Your task to perform on an android device: change the upload size in google photos Image 0: 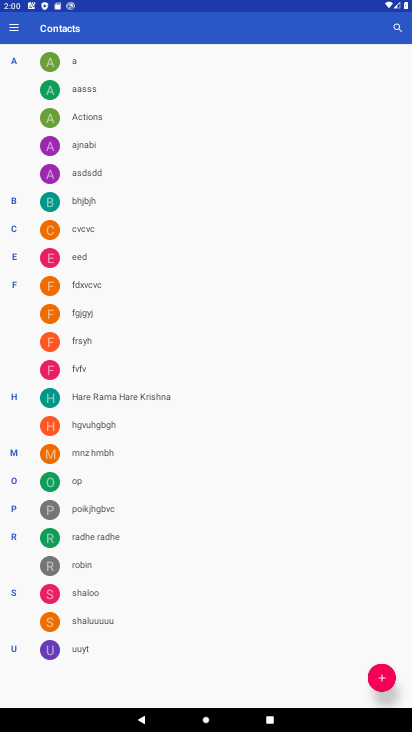
Step 0: press home button
Your task to perform on an android device: change the upload size in google photos Image 1: 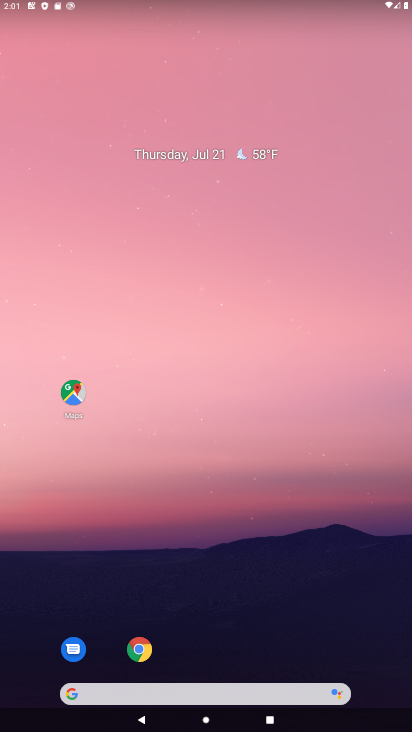
Step 1: drag from (282, 627) to (41, 130)
Your task to perform on an android device: change the upload size in google photos Image 2: 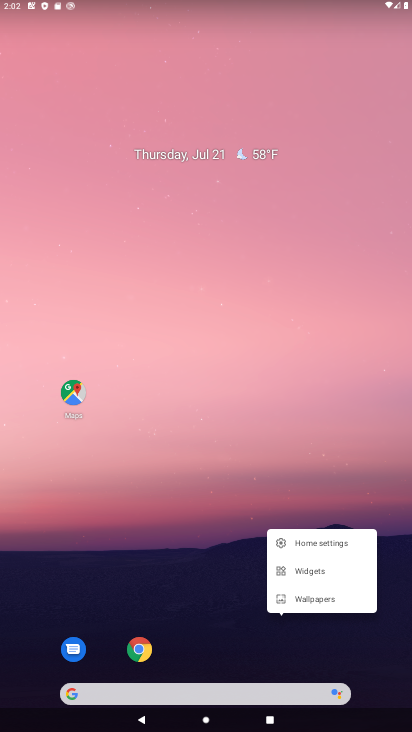
Step 2: click (278, 377)
Your task to perform on an android device: change the upload size in google photos Image 3: 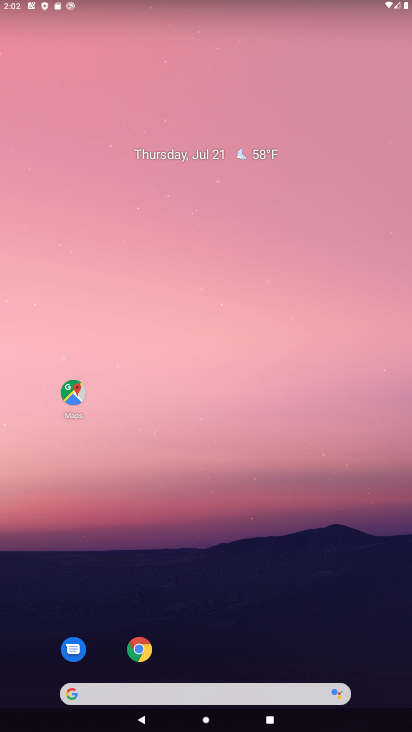
Step 3: task complete